Your task to perform on an android device: Open the calendar and show me this week's events? Image 0: 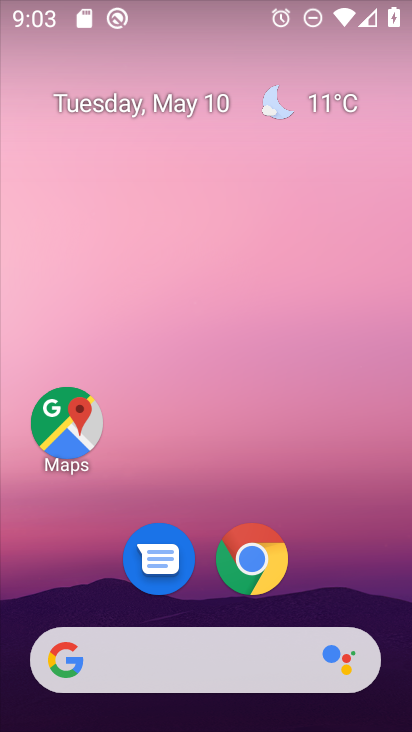
Step 0: drag from (227, 721) to (228, 194)
Your task to perform on an android device: Open the calendar and show me this week's events? Image 1: 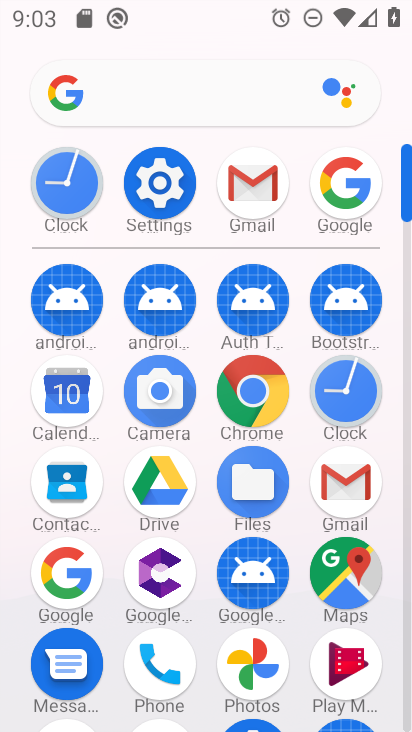
Step 1: click (68, 394)
Your task to perform on an android device: Open the calendar and show me this week's events? Image 2: 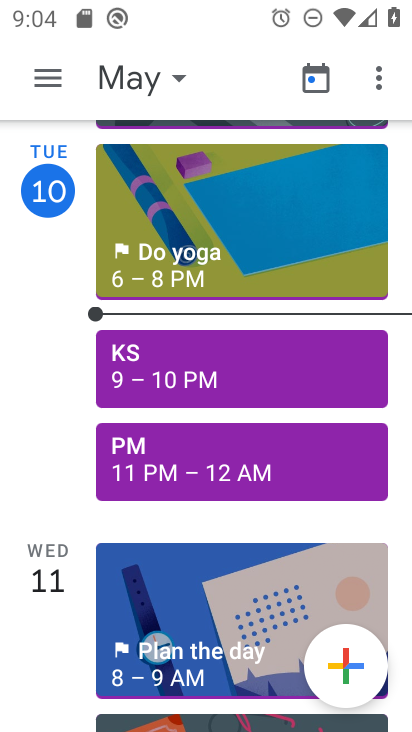
Step 2: click (46, 79)
Your task to perform on an android device: Open the calendar and show me this week's events? Image 3: 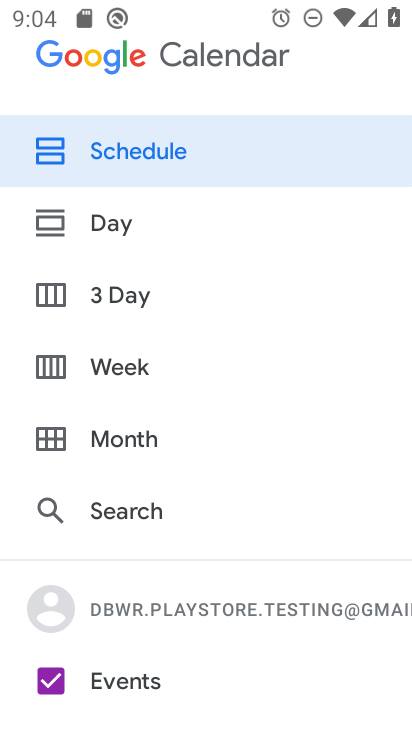
Step 3: click (108, 370)
Your task to perform on an android device: Open the calendar and show me this week's events? Image 4: 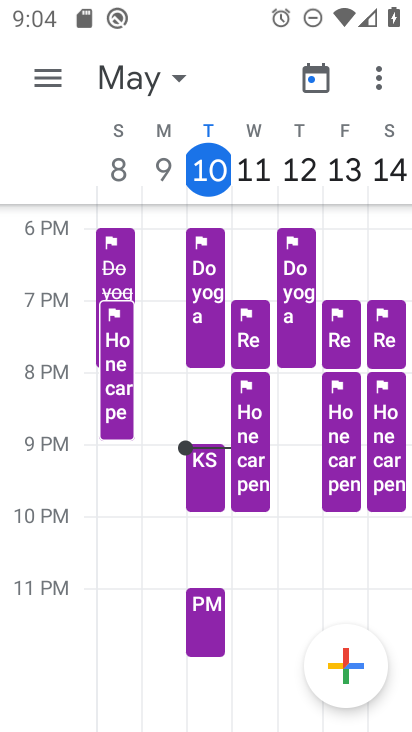
Step 4: task complete